Your task to perform on an android device: allow cookies in the chrome app Image 0: 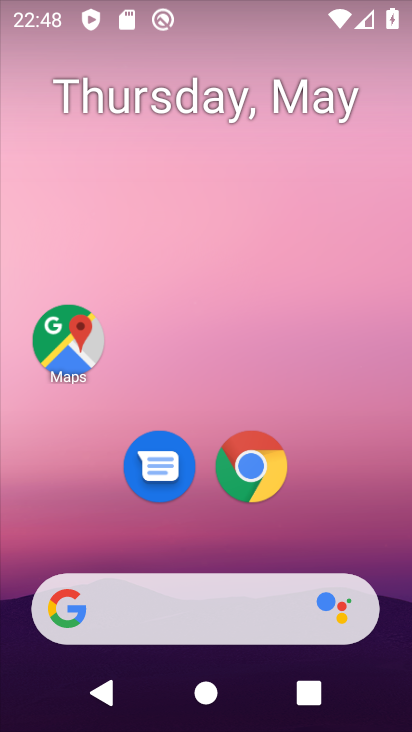
Step 0: click (152, 711)
Your task to perform on an android device: allow cookies in the chrome app Image 1: 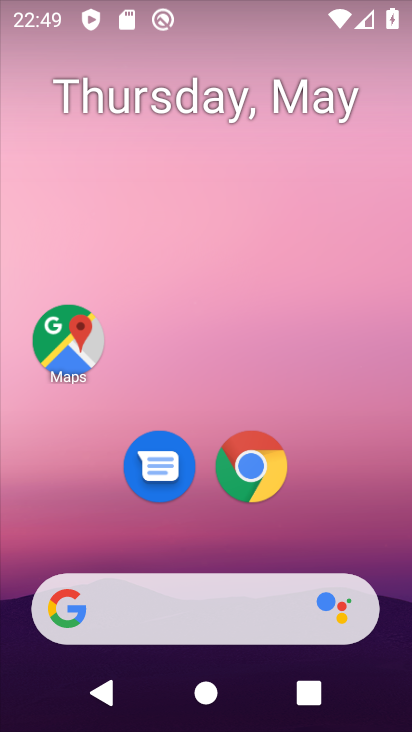
Step 1: click (257, 468)
Your task to perform on an android device: allow cookies in the chrome app Image 2: 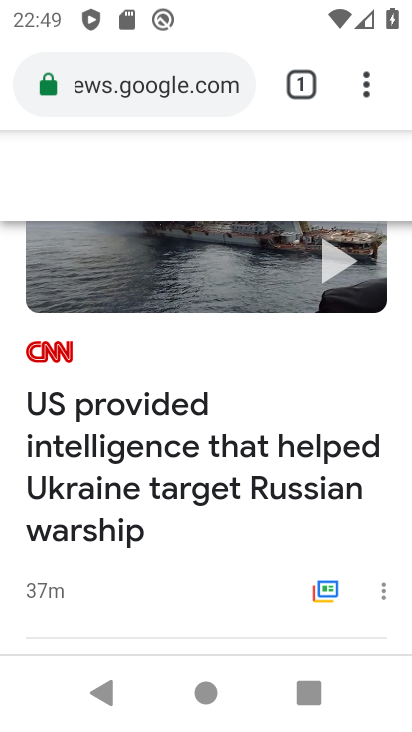
Step 2: drag from (367, 84) to (162, 506)
Your task to perform on an android device: allow cookies in the chrome app Image 3: 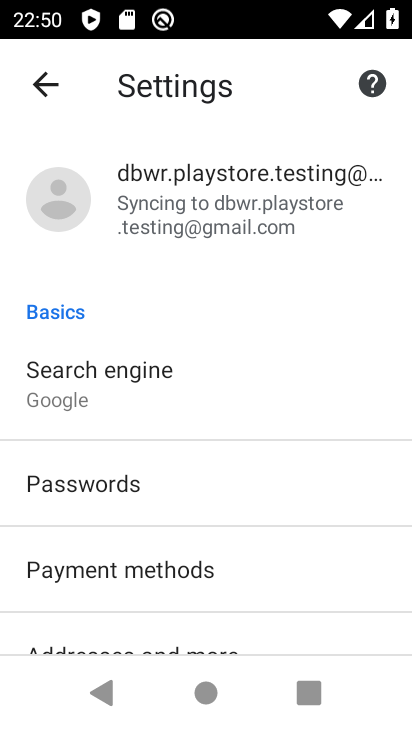
Step 3: drag from (220, 607) to (279, 140)
Your task to perform on an android device: allow cookies in the chrome app Image 4: 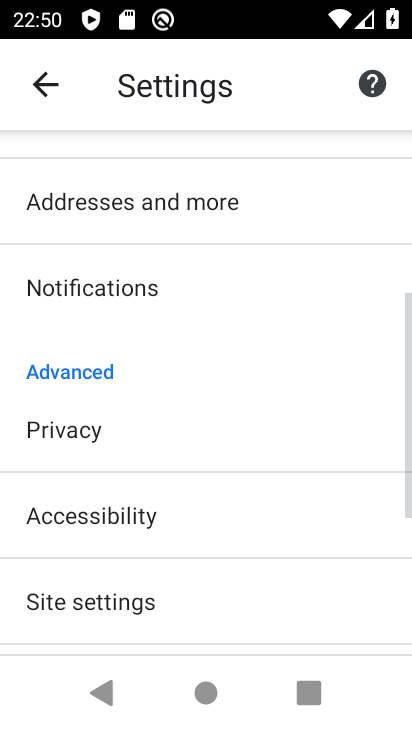
Step 4: drag from (142, 553) to (221, 264)
Your task to perform on an android device: allow cookies in the chrome app Image 5: 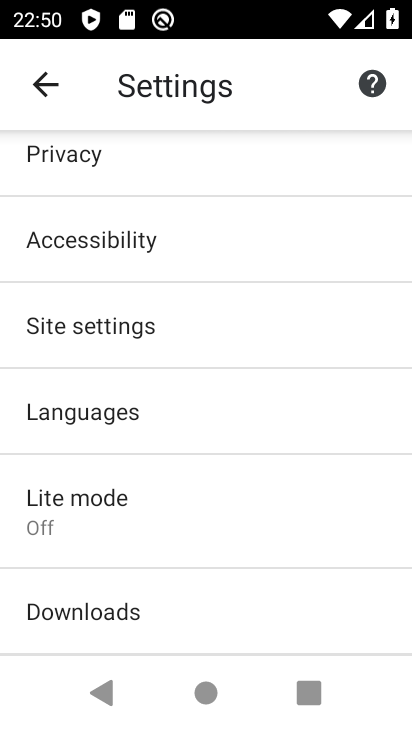
Step 5: click (148, 334)
Your task to perform on an android device: allow cookies in the chrome app Image 6: 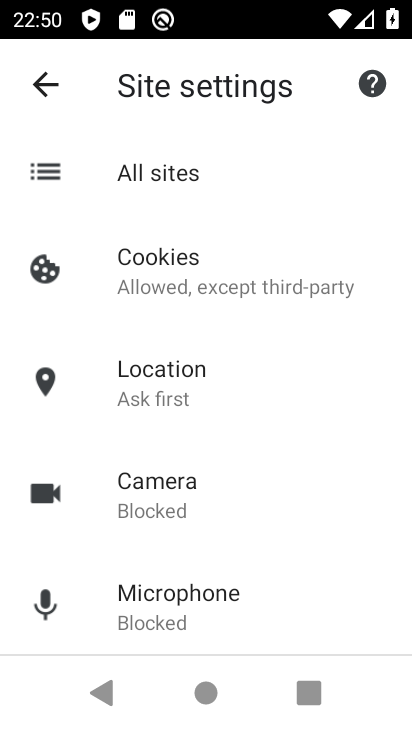
Step 6: click (224, 291)
Your task to perform on an android device: allow cookies in the chrome app Image 7: 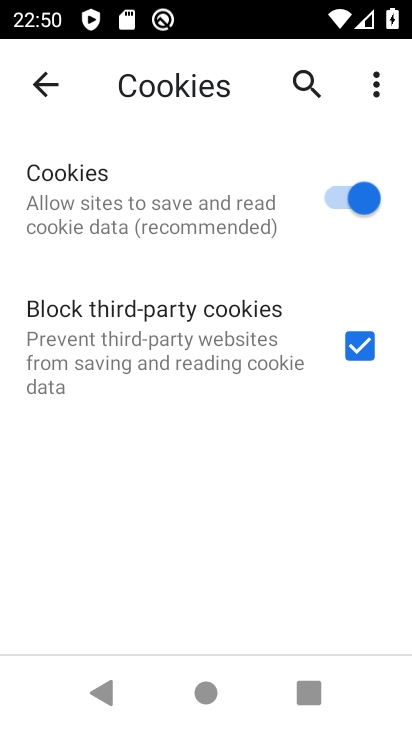
Step 7: task complete